Your task to perform on an android device: Go to Amazon Image 0: 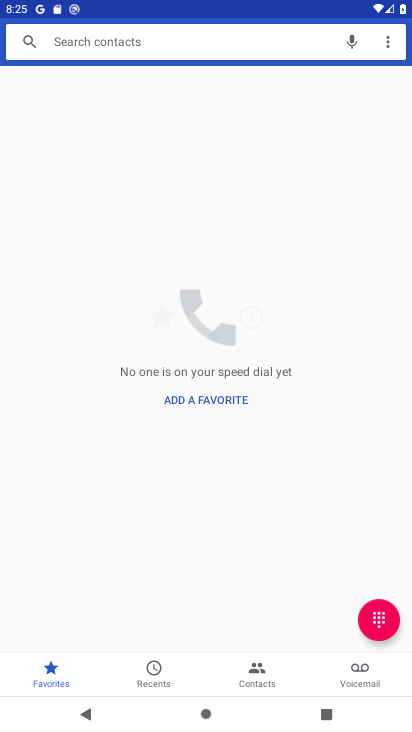
Step 0: press home button
Your task to perform on an android device: Go to Amazon Image 1: 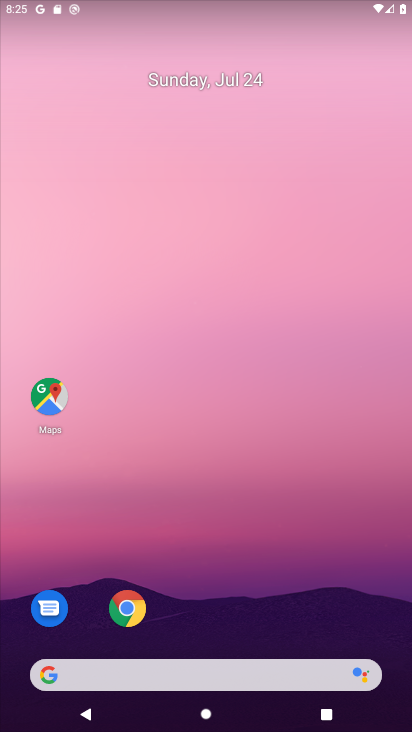
Step 1: click (131, 612)
Your task to perform on an android device: Go to Amazon Image 2: 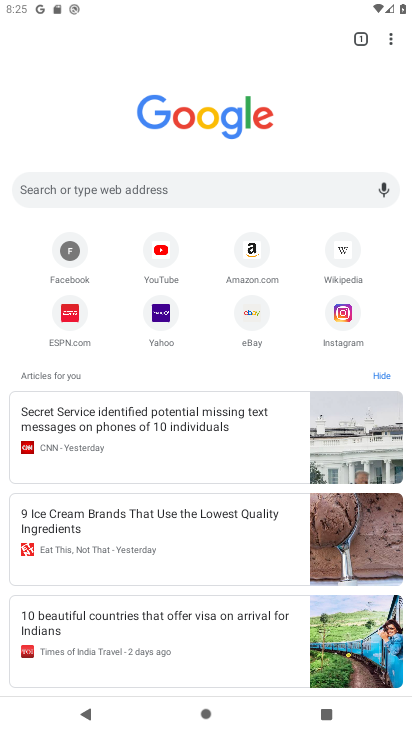
Step 2: click (259, 260)
Your task to perform on an android device: Go to Amazon Image 3: 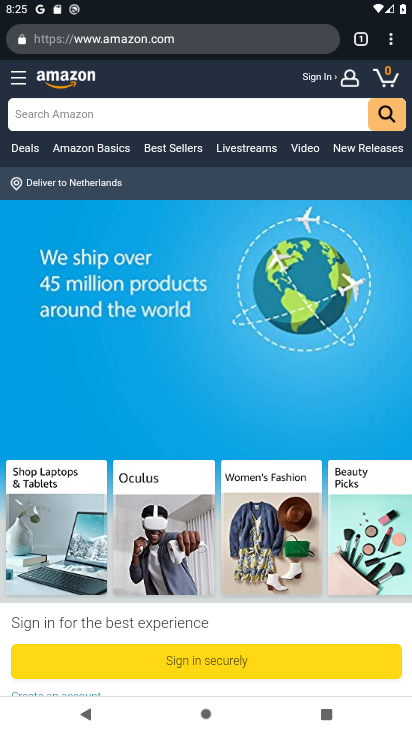
Step 3: task complete